Your task to perform on an android device: change the clock display to analog Image 0: 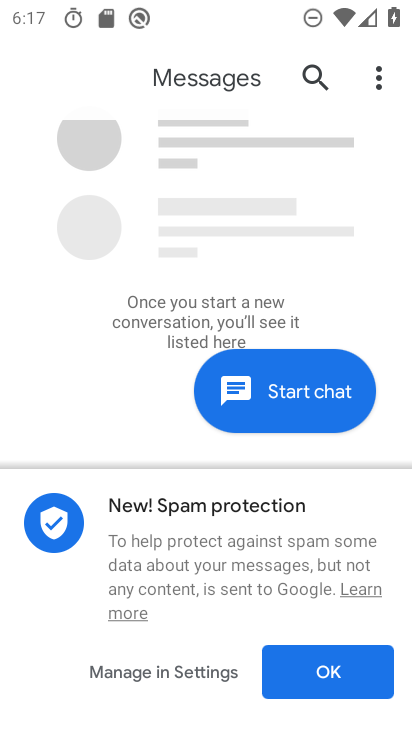
Step 0: press back button
Your task to perform on an android device: change the clock display to analog Image 1: 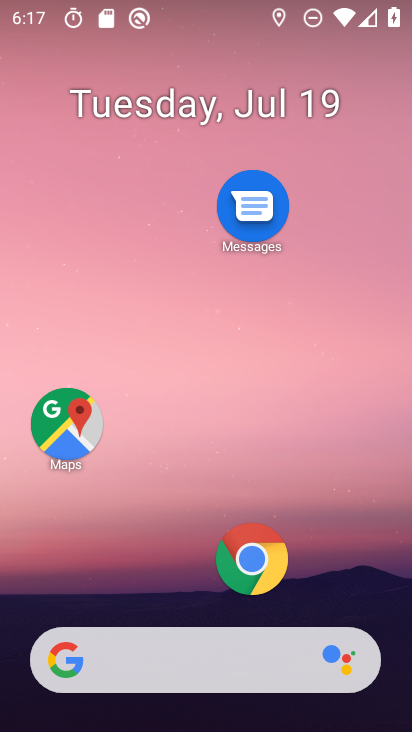
Step 1: drag from (155, 591) to (154, 21)
Your task to perform on an android device: change the clock display to analog Image 2: 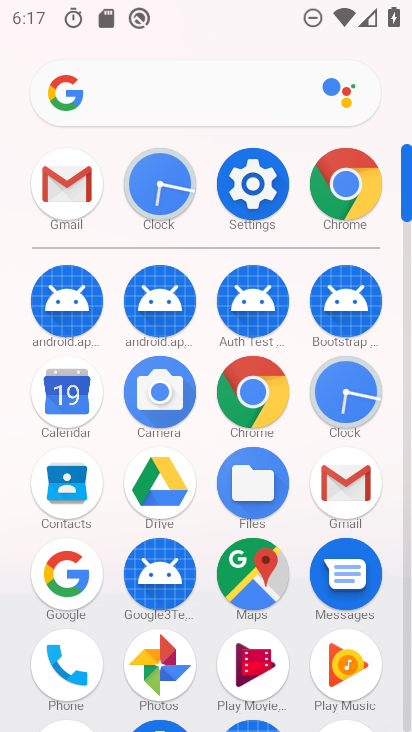
Step 2: click (156, 186)
Your task to perform on an android device: change the clock display to analog Image 3: 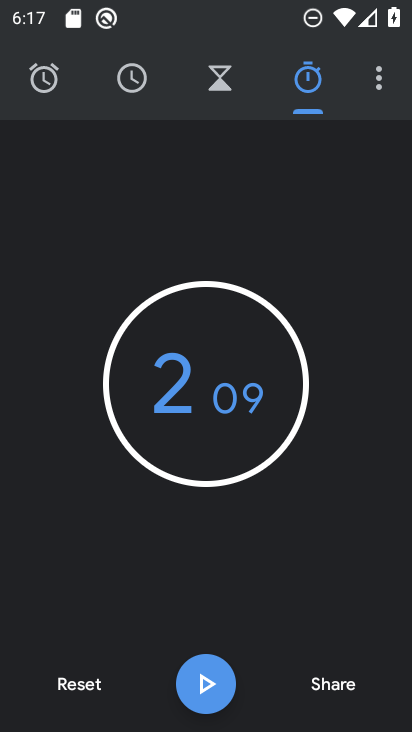
Step 3: click (378, 69)
Your task to perform on an android device: change the clock display to analog Image 4: 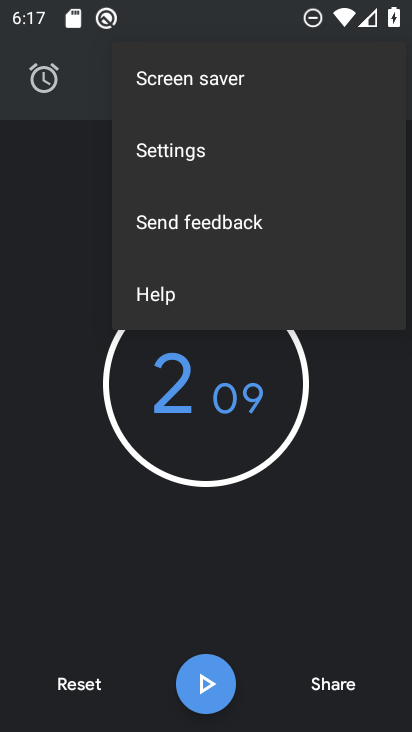
Step 4: click (191, 149)
Your task to perform on an android device: change the clock display to analog Image 5: 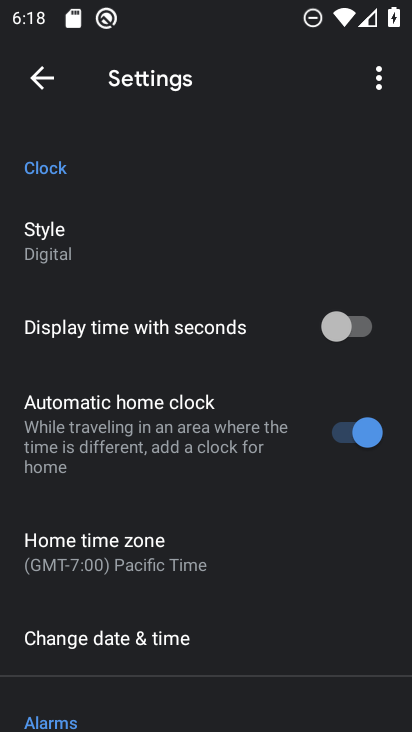
Step 5: click (75, 234)
Your task to perform on an android device: change the clock display to analog Image 6: 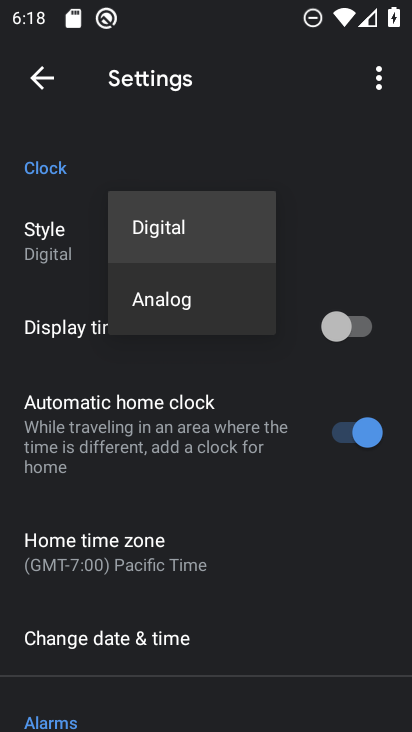
Step 6: click (192, 303)
Your task to perform on an android device: change the clock display to analog Image 7: 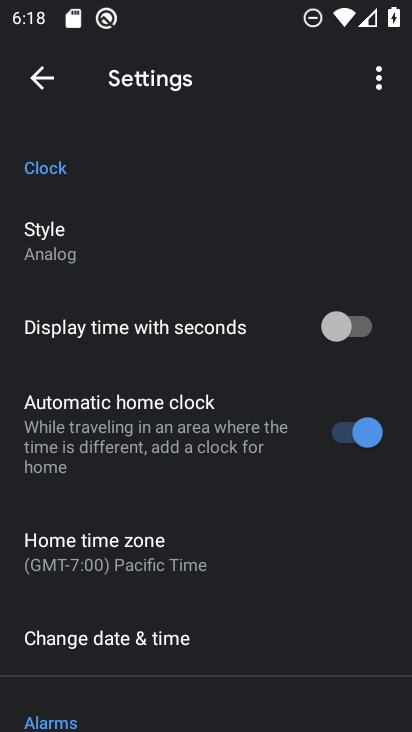
Step 7: task complete